Your task to perform on an android device: Open wifi settings Image 0: 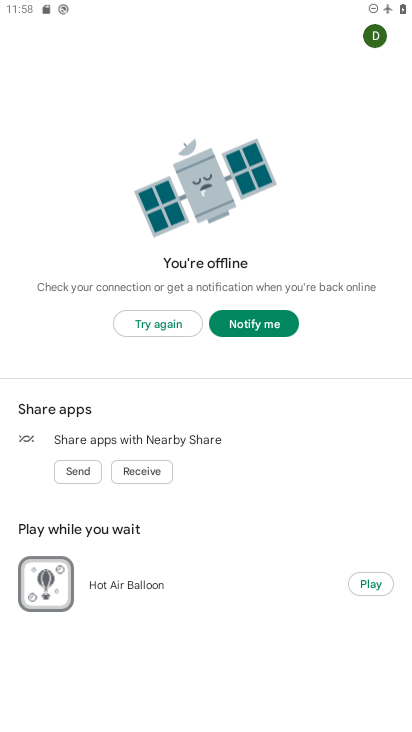
Step 0: press home button
Your task to perform on an android device: Open wifi settings Image 1: 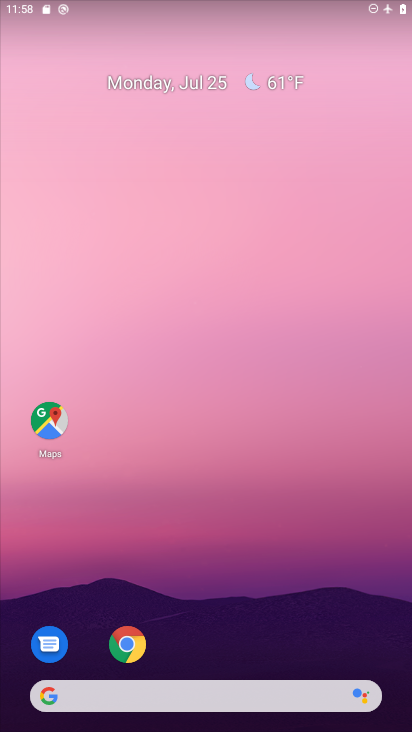
Step 1: drag from (252, 644) to (190, 336)
Your task to perform on an android device: Open wifi settings Image 2: 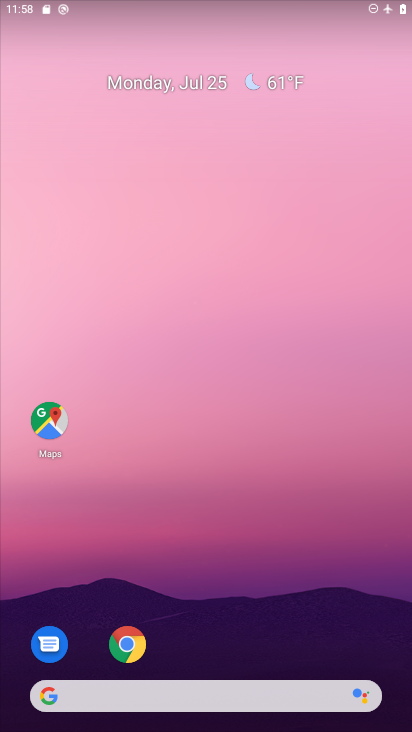
Step 2: drag from (271, 613) to (254, 404)
Your task to perform on an android device: Open wifi settings Image 3: 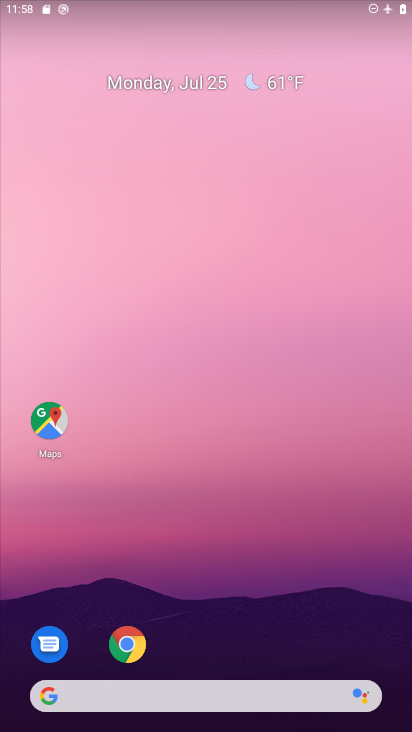
Step 3: drag from (219, 630) to (173, 98)
Your task to perform on an android device: Open wifi settings Image 4: 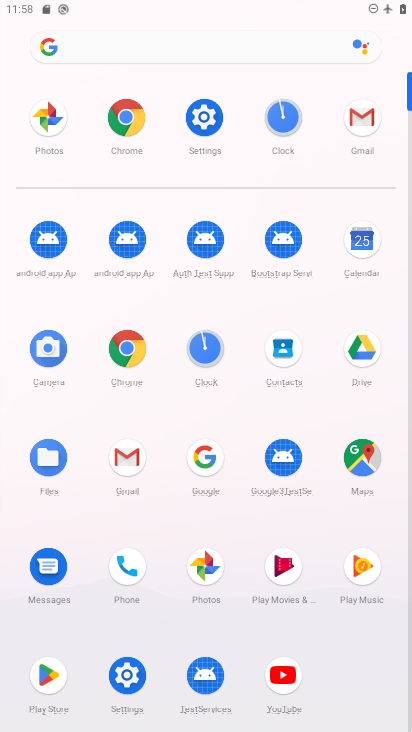
Step 4: click (186, 114)
Your task to perform on an android device: Open wifi settings Image 5: 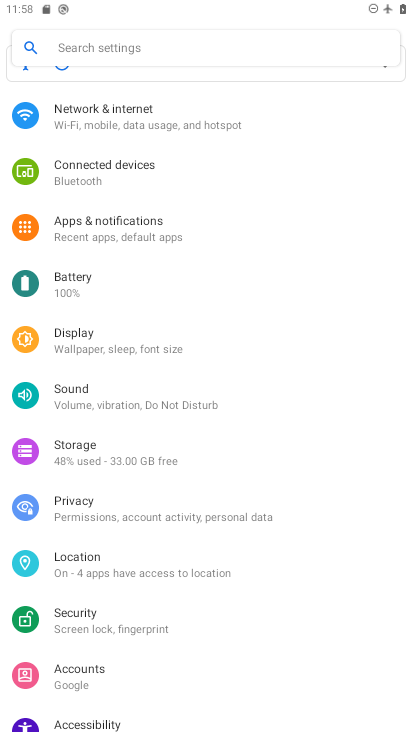
Step 5: click (106, 124)
Your task to perform on an android device: Open wifi settings Image 6: 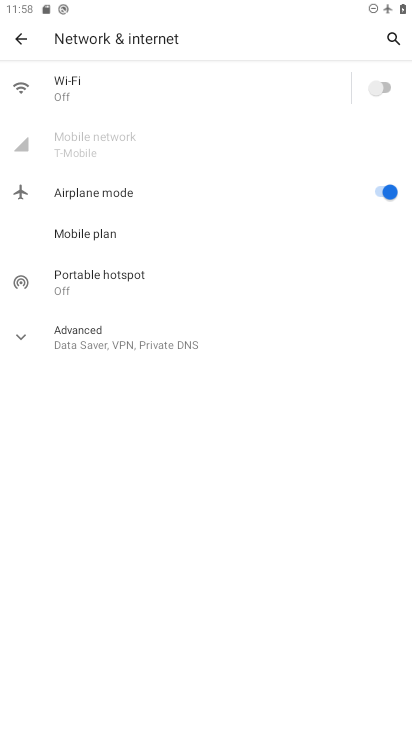
Step 6: click (102, 90)
Your task to perform on an android device: Open wifi settings Image 7: 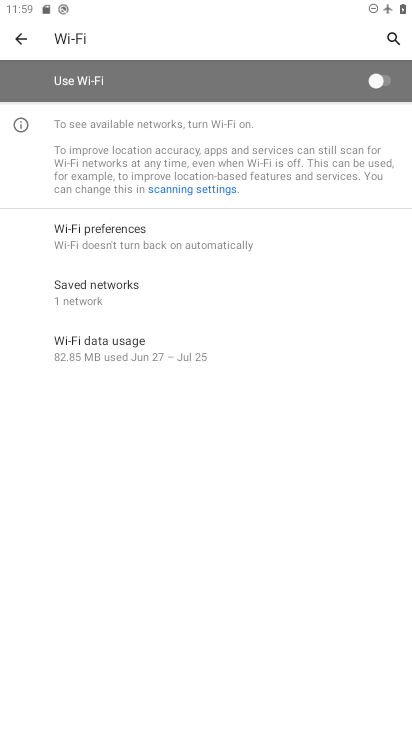
Step 7: task complete